Your task to perform on an android device: make emails show in primary in the gmail app Image 0: 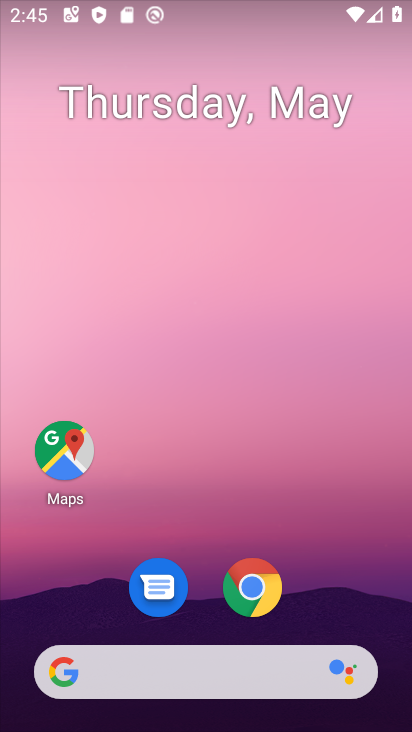
Step 0: drag from (353, 651) to (265, 0)
Your task to perform on an android device: make emails show in primary in the gmail app Image 1: 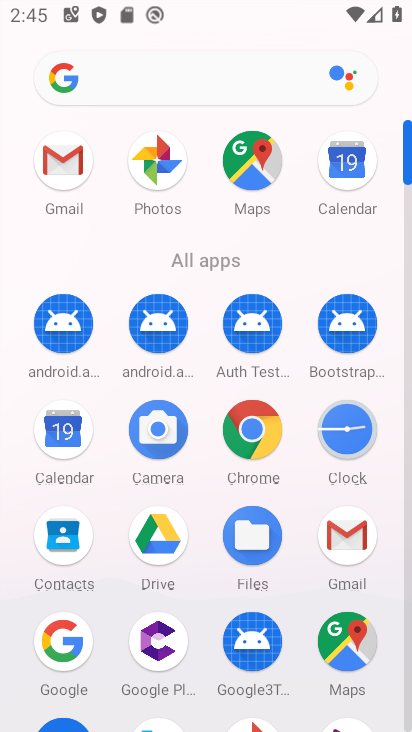
Step 1: click (330, 538)
Your task to perform on an android device: make emails show in primary in the gmail app Image 2: 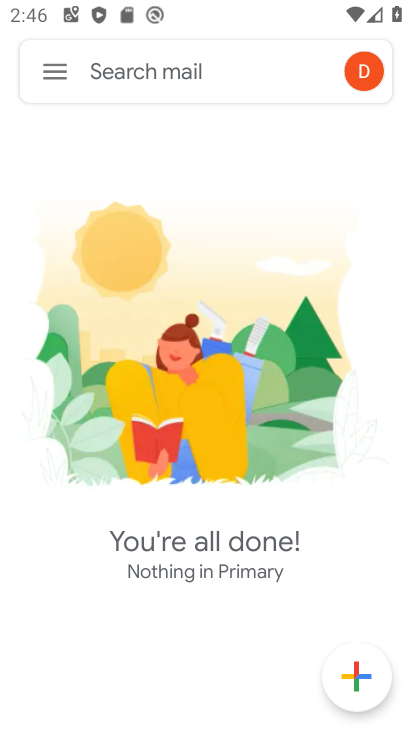
Step 2: click (73, 71)
Your task to perform on an android device: make emails show in primary in the gmail app Image 3: 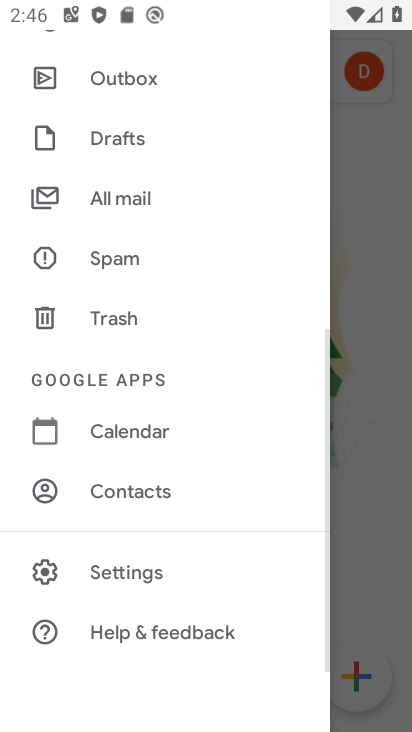
Step 3: click (158, 582)
Your task to perform on an android device: make emails show in primary in the gmail app Image 4: 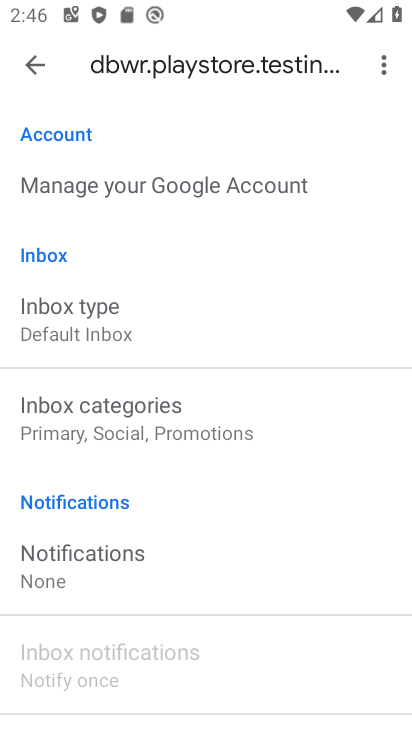
Step 4: click (142, 416)
Your task to perform on an android device: make emails show in primary in the gmail app Image 5: 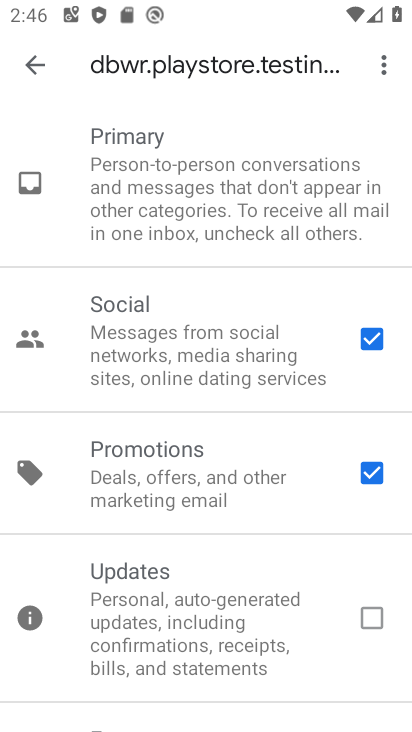
Step 5: click (365, 335)
Your task to perform on an android device: make emails show in primary in the gmail app Image 6: 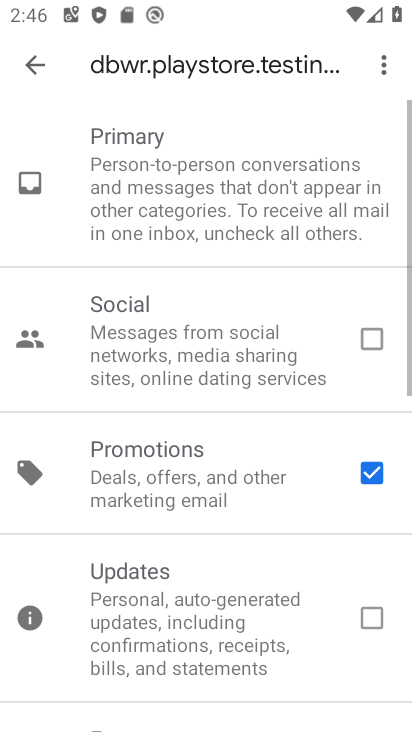
Step 6: click (374, 476)
Your task to perform on an android device: make emails show in primary in the gmail app Image 7: 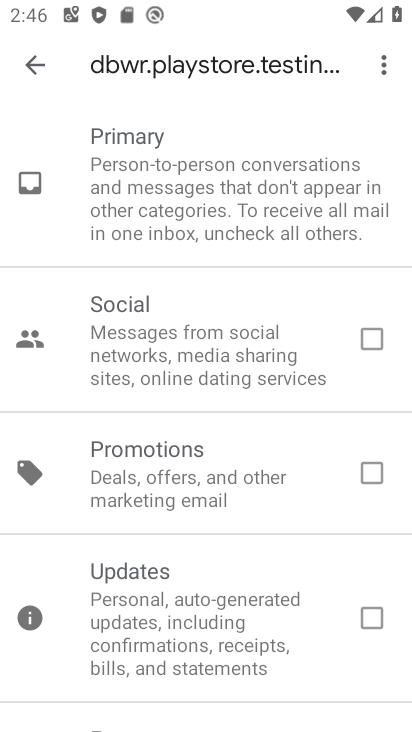
Step 7: task complete